Your task to perform on an android device: Open Android settings Image 0: 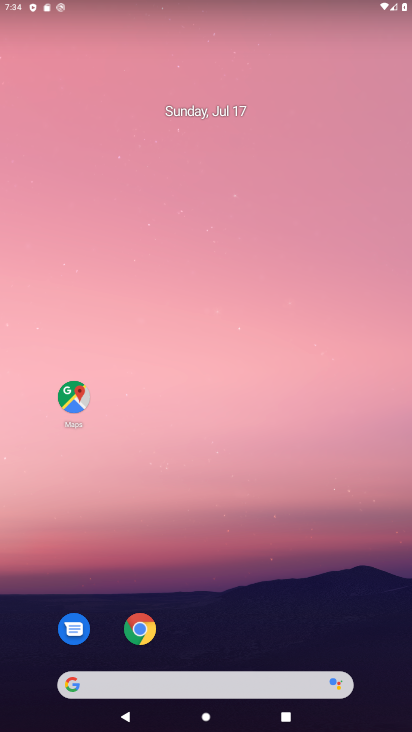
Step 0: drag from (199, 635) to (154, 87)
Your task to perform on an android device: Open Android settings Image 1: 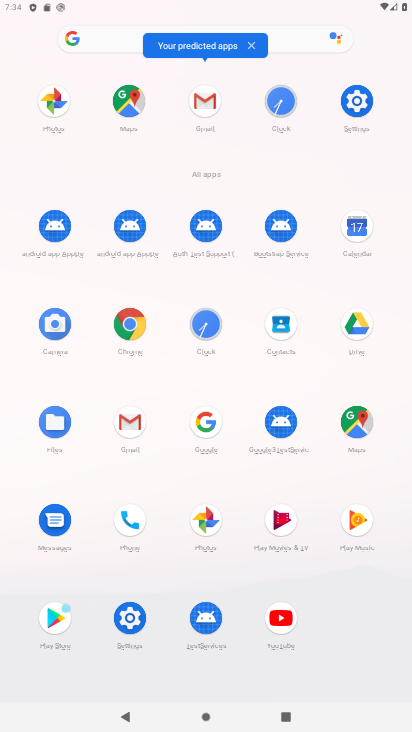
Step 1: click (363, 99)
Your task to perform on an android device: Open Android settings Image 2: 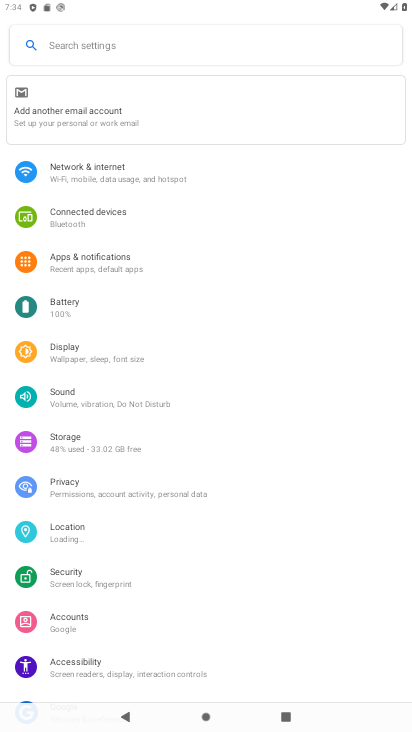
Step 2: drag from (118, 622) to (129, 207)
Your task to perform on an android device: Open Android settings Image 3: 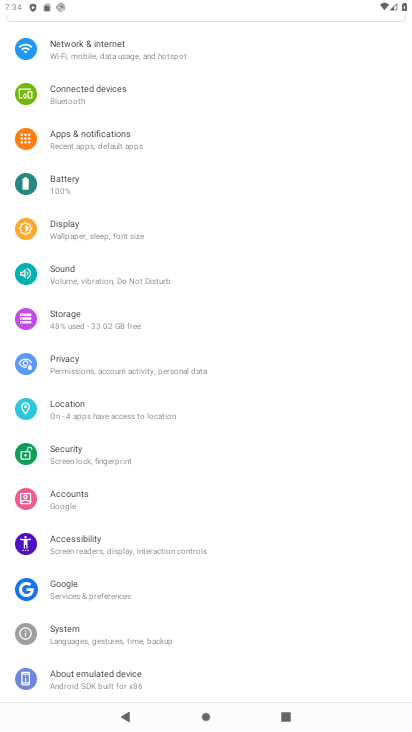
Step 3: click (112, 674)
Your task to perform on an android device: Open Android settings Image 4: 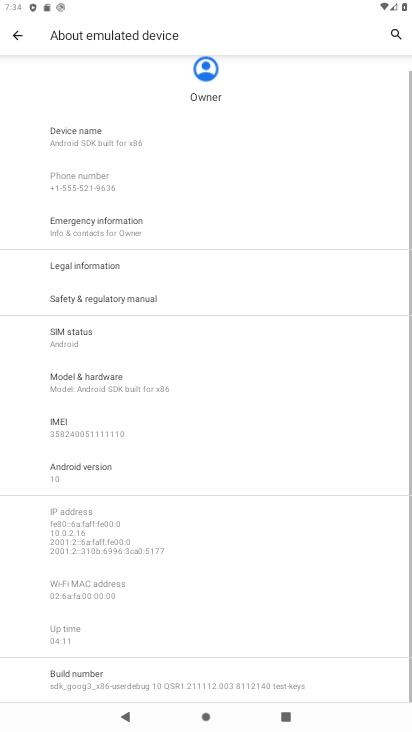
Step 4: click (76, 463)
Your task to perform on an android device: Open Android settings Image 5: 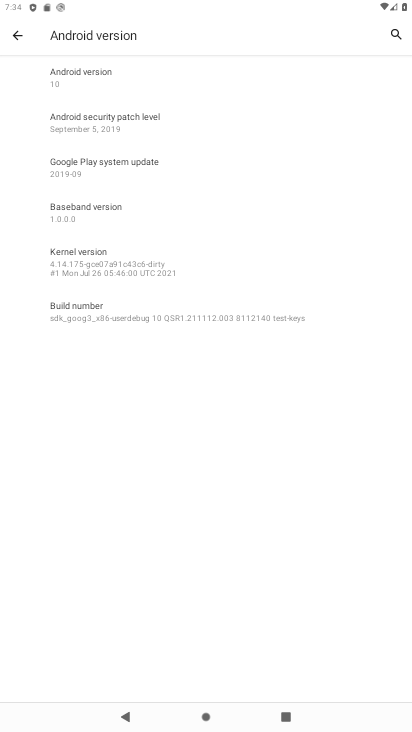
Step 5: task complete